Your task to perform on an android device: Open CNN.com Image 0: 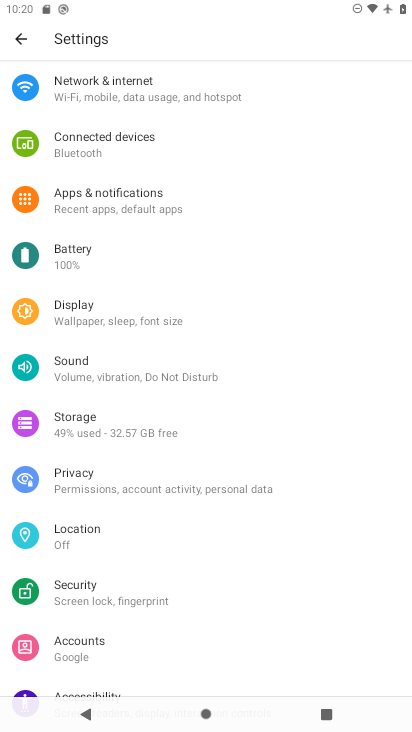
Step 0: press home button
Your task to perform on an android device: Open CNN.com Image 1: 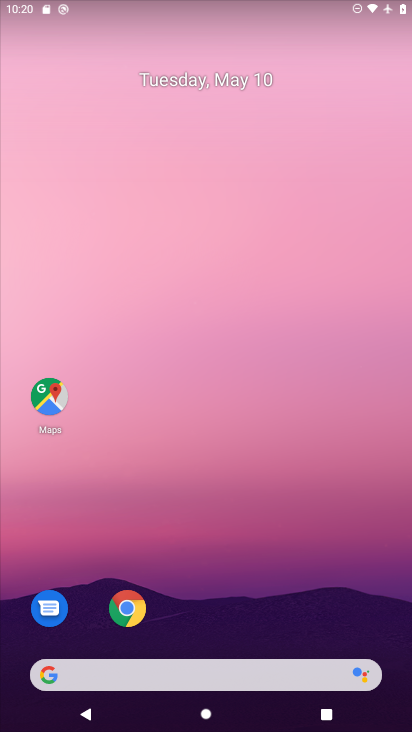
Step 1: drag from (285, 460) to (299, 271)
Your task to perform on an android device: Open CNN.com Image 2: 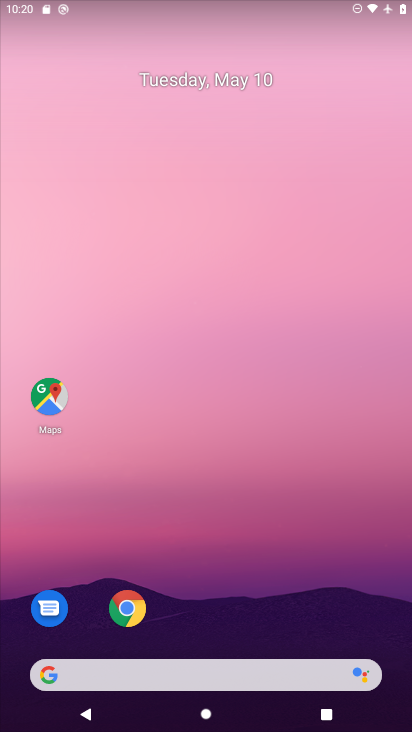
Step 2: drag from (199, 591) to (205, 98)
Your task to perform on an android device: Open CNN.com Image 3: 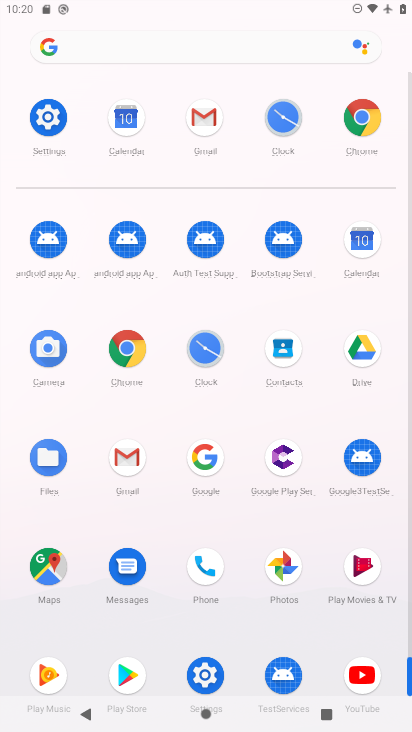
Step 3: click (359, 108)
Your task to perform on an android device: Open CNN.com Image 4: 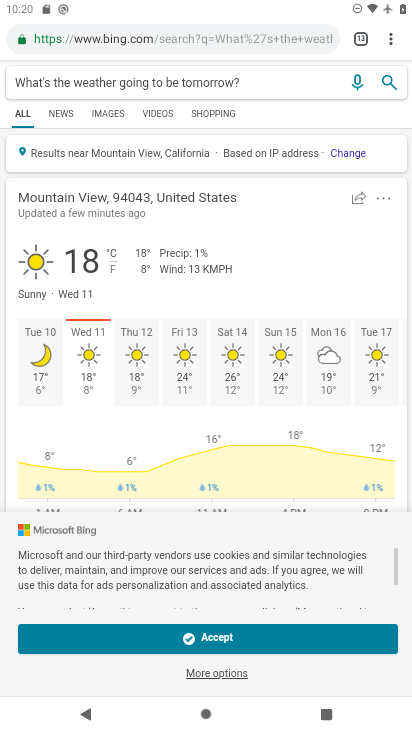
Step 4: click (382, 32)
Your task to perform on an android device: Open CNN.com Image 5: 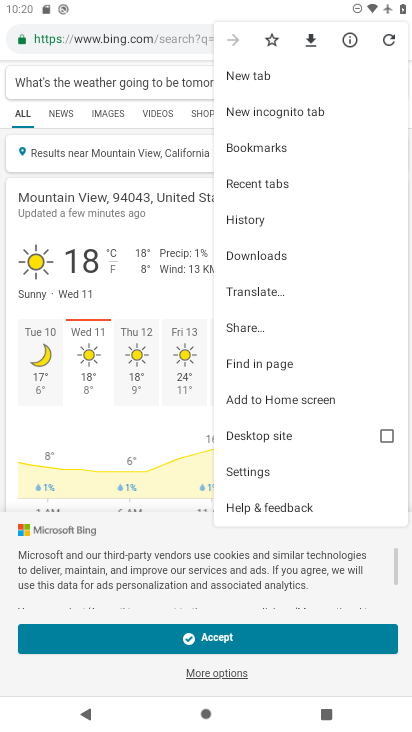
Step 5: click (267, 73)
Your task to perform on an android device: Open CNN.com Image 6: 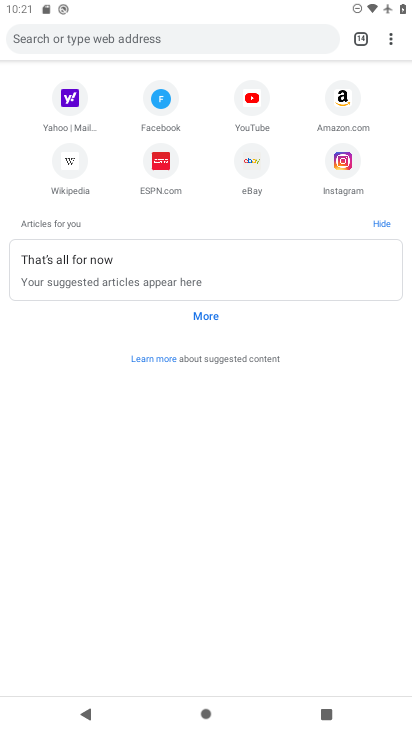
Step 6: click (211, 33)
Your task to perform on an android device: Open CNN.com Image 7: 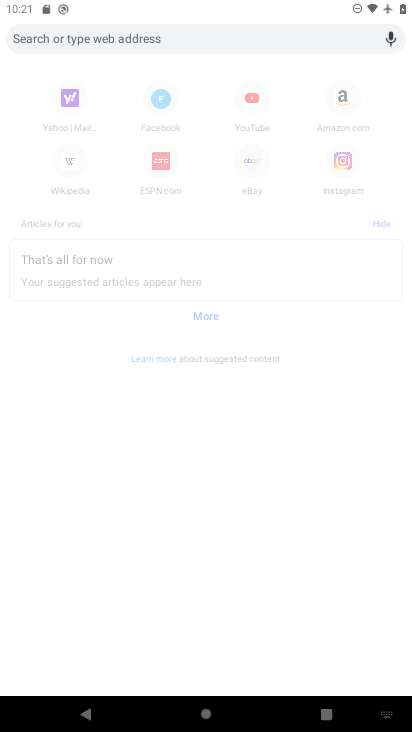
Step 7: type "CNN.com"
Your task to perform on an android device: Open CNN.com Image 8: 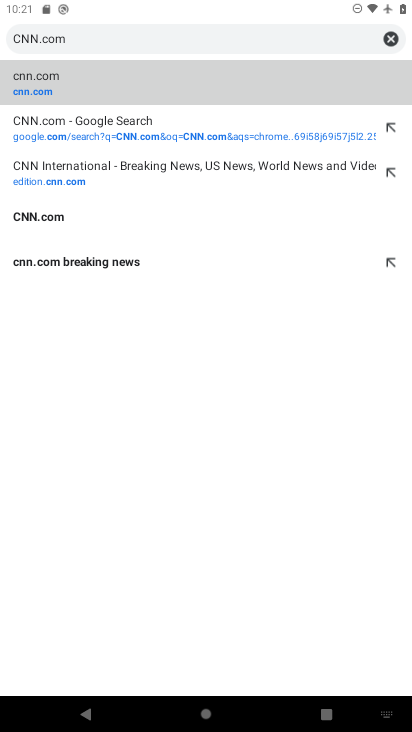
Step 8: click (108, 77)
Your task to perform on an android device: Open CNN.com Image 9: 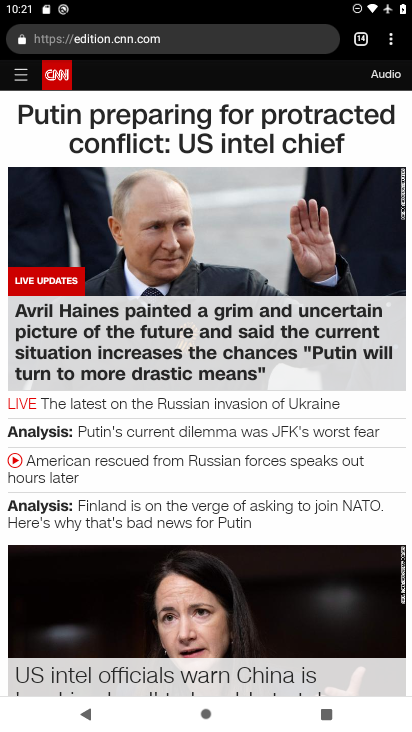
Step 9: task complete